Your task to perform on an android device: toggle improve location accuracy Image 0: 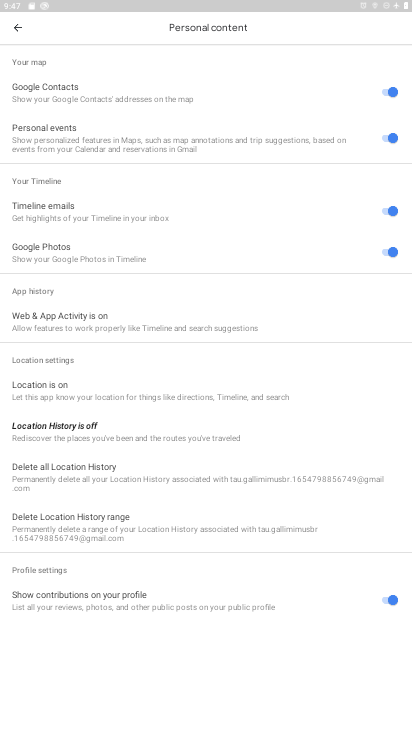
Step 0: press home button
Your task to perform on an android device: toggle improve location accuracy Image 1: 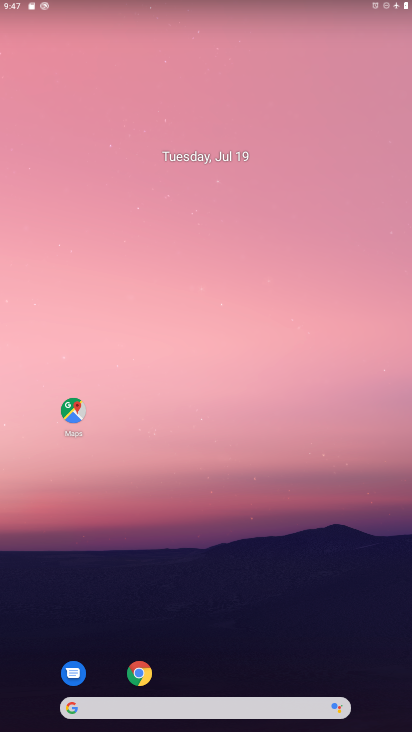
Step 1: drag from (353, 649) to (272, 197)
Your task to perform on an android device: toggle improve location accuracy Image 2: 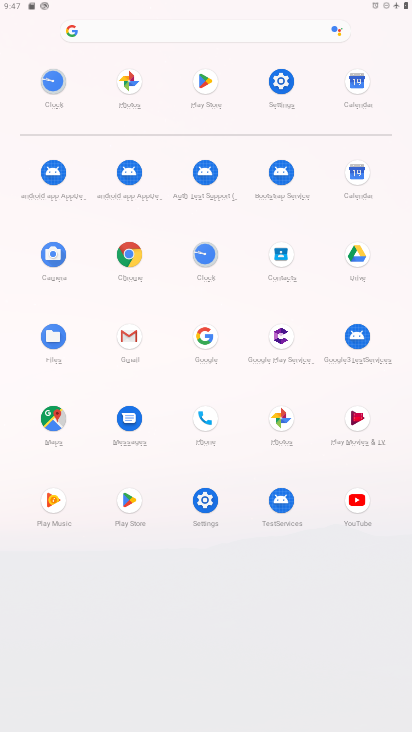
Step 2: click (206, 500)
Your task to perform on an android device: toggle improve location accuracy Image 3: 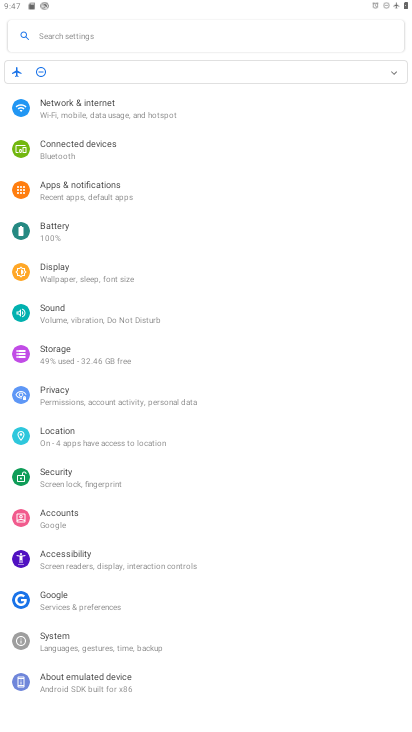
Step 3: click (56, 427)
Your task to perform on an android device: toggle improve location accuracy Image 4: 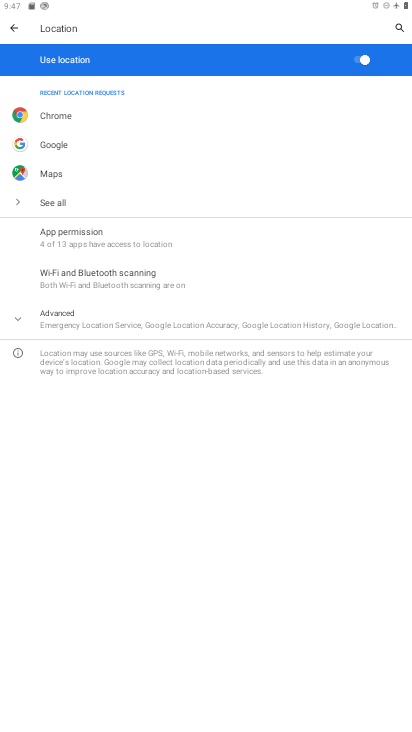
Step 4: click (15, 314)
Your task to perform on an android device: toggle improve location accuracy Image 5: 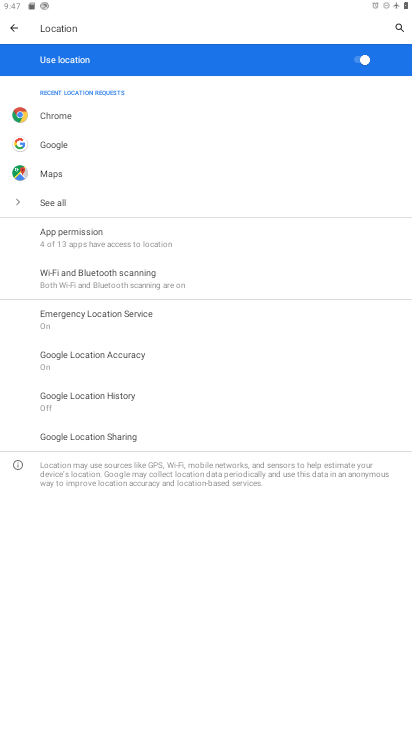
Step 5: click (80, 351)
Your task to perform on an android device: toggle improve location accuracy Image 6: 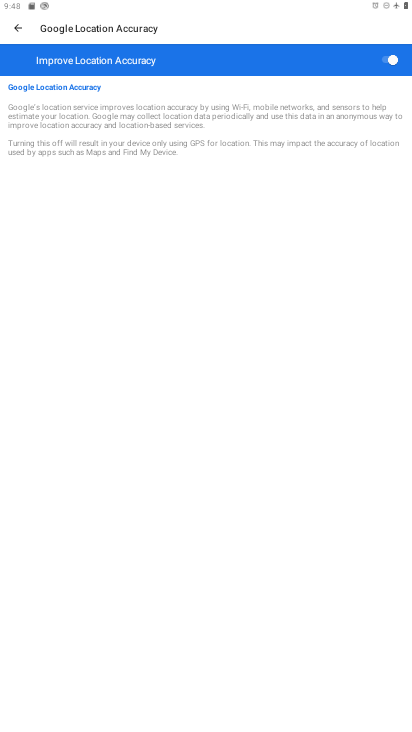
Step 6: click (380, 53)
Your task to perform on an android device: toggle improve location accuracy Image 7: 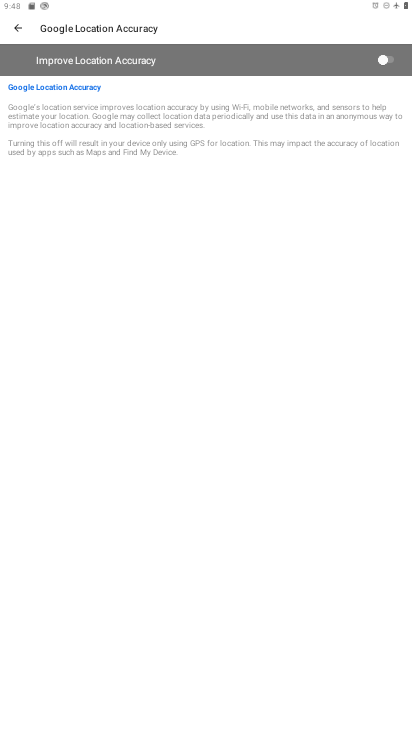
Step 7: task complete